Your task to perform on an android device: turn on bluetooth scan Image 0: 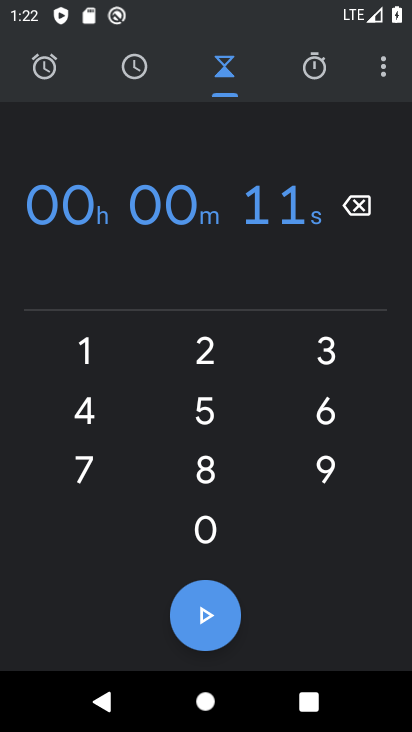
Step 0: press home button
Your task to perform on an android device: turn on bluetooth scan Image 1: 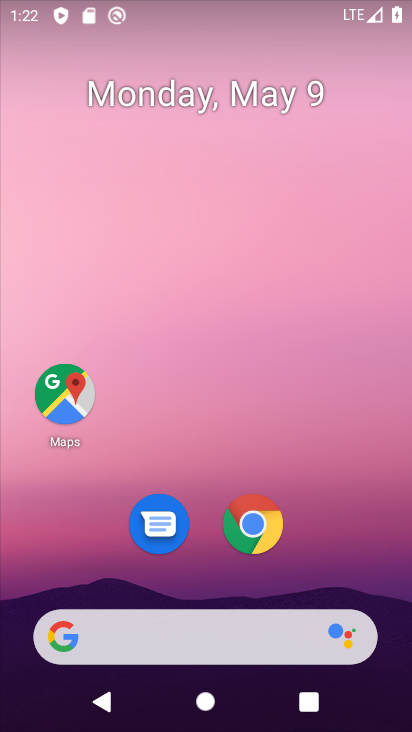
Step 1: drag from (300, 517) to (251, 34)
Your task to perform on an android device: turn on bluetooth scan Image 2: 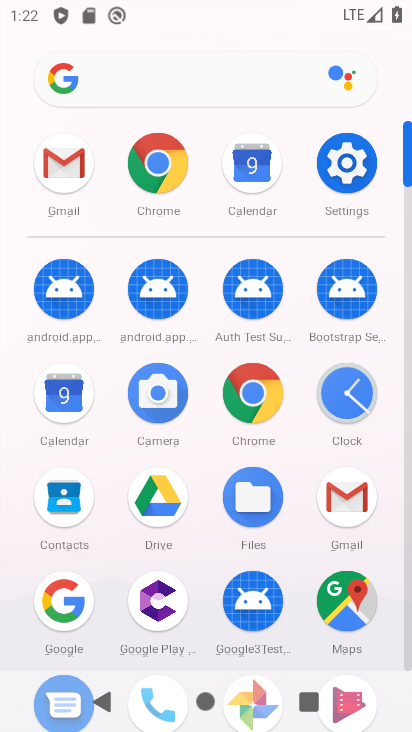
Step 2: click (352, 164)
Your task to perform on an android device: turn on bluetooth scan Image 3: 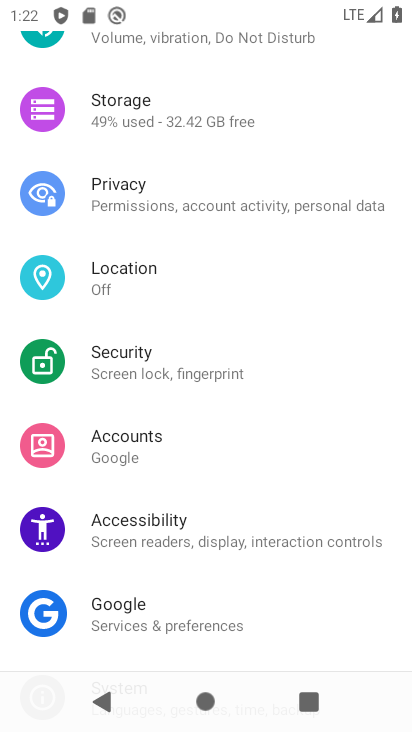
Step 3: click (165, 292)
Your task to perform on an android device: turn on bluetooth scan Image 4: 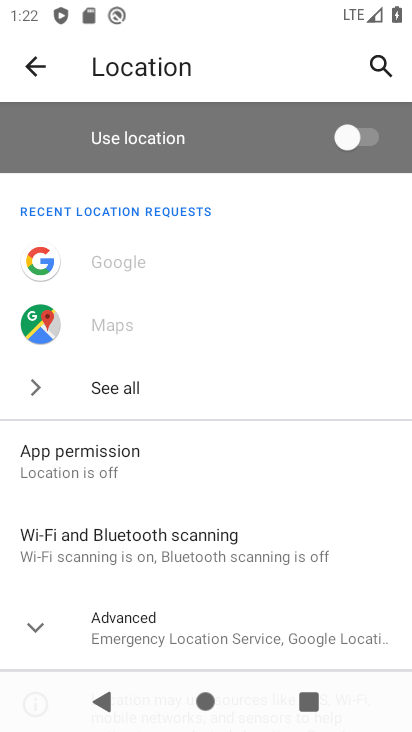
Step 4: click (252, 542)
Your task to perform on an android device: turn on bluetooth scan Image 5: 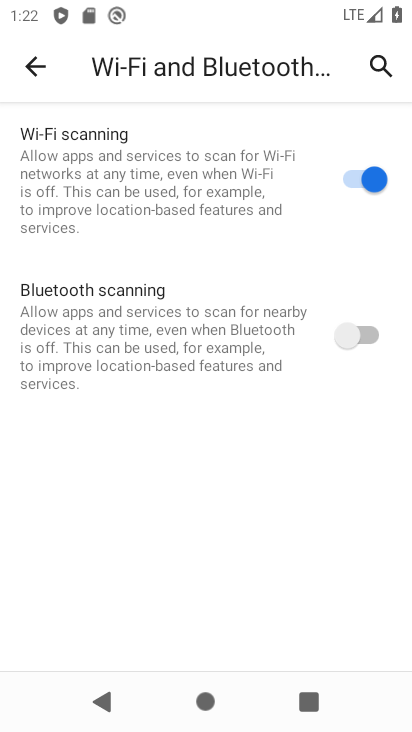
Step 5: click (358, 323)
Your task to perform on an android device: turn on bluetooth scan Image 6: 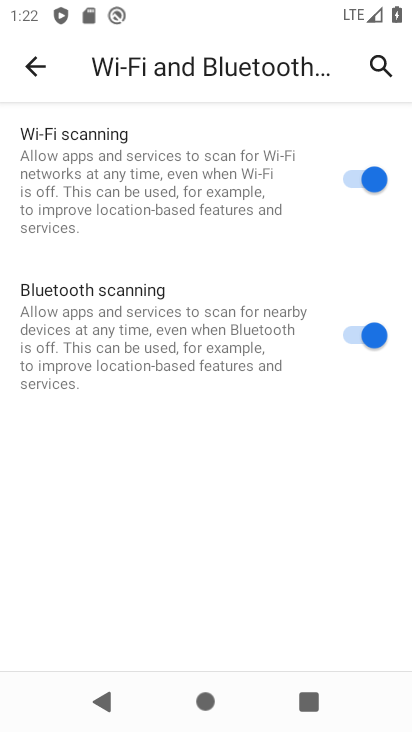
Step 6: task complete